Your task to perform on an android device: manage bookmarks in the chrome app Image 0: 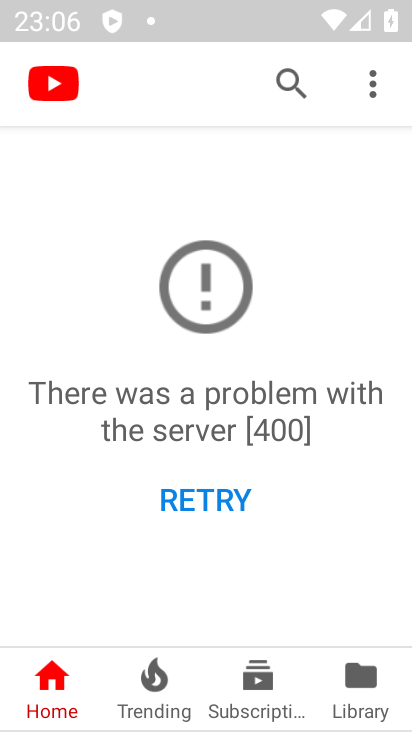
Step 0: press home button
Your task to perform on an android device: manage bookmarks in the chrome app Image 1: 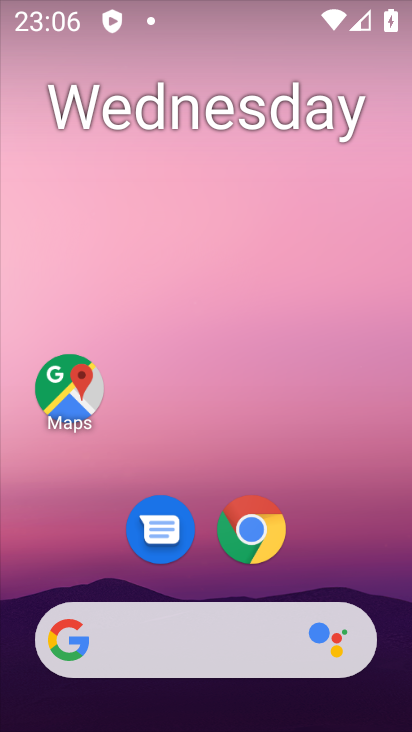
Step 1: drag from (380, 591) to (398, 197)
Your task to perform on an android device: manage bookmarks in the chrome app Image 2: 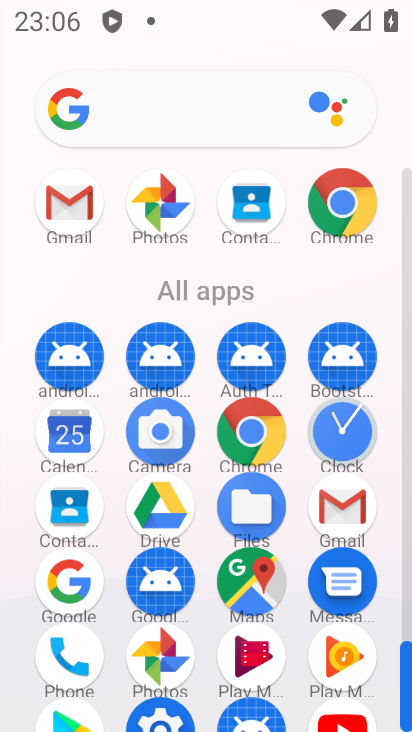
Step 2: click (263, 445)
Your task to perform on an android device: manage bookmarks in the chrome app Image 3: 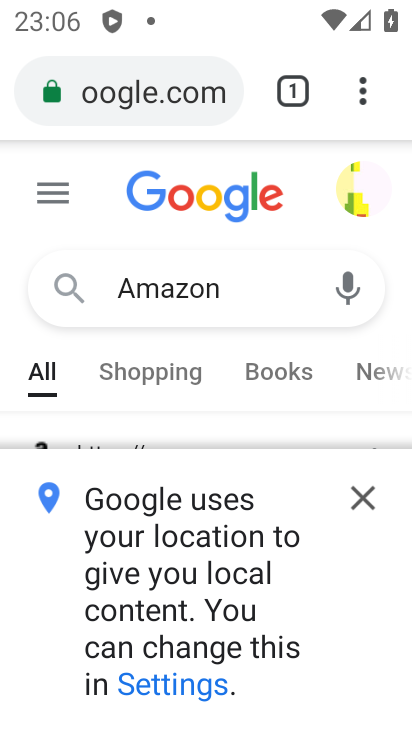
Step 3: click (362, 102)
Your task to perform on an android device: manage bookmarks in the chrome app Image 4: 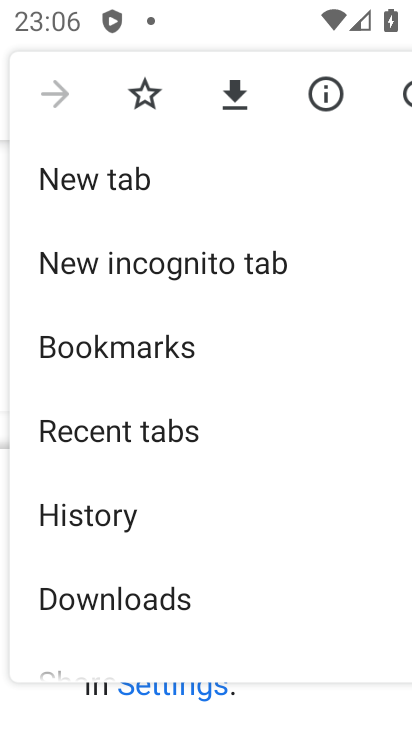
Step 4: drag from (298, 540) to (308, 462)
Your task to perform on an android device: manage bookmarks in the chrome app Image 5: 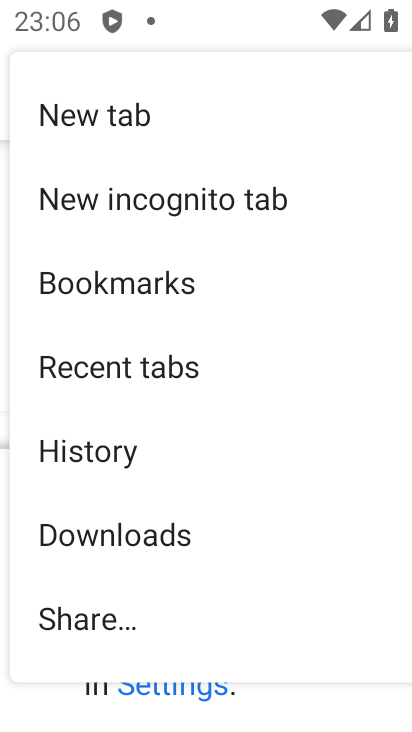
Step 5: drag from (285, 554) to (309, 442)
Your task to perform on an android device: manage bookmarks in the chrome app Image 6: 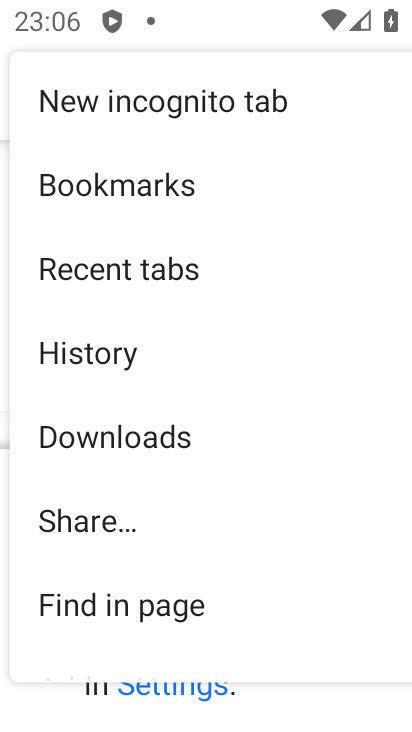
Step 6: drag from (311, 544) to (302, 359)
Your task to perform on an android device: manage bookmarks in the chrome app Image 7: 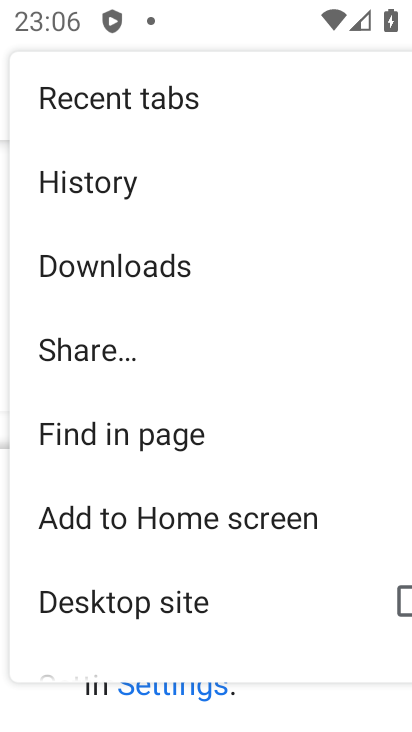
Step 7: drag from (304, 241) to (315, 339)
Your task to perform on an android device: manage bookmarks in the chrome app Image 8: 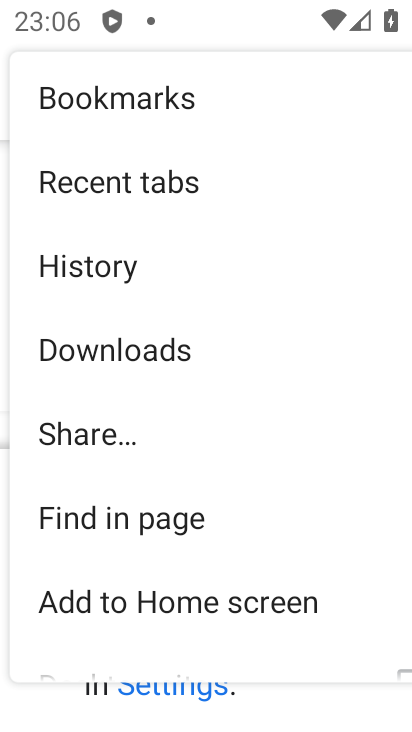
Step 8: drag from (307, 233) to (304, 332)
Your task to perform on an android device: manage bookmarks in the chrome app Image 9: 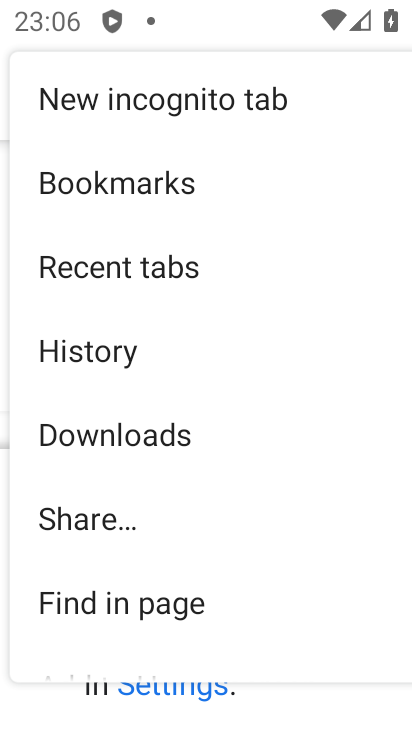
Step 9: click (207, 200)
Your task to perform on an android device: manage bookmarks in the chrome app Image 10: 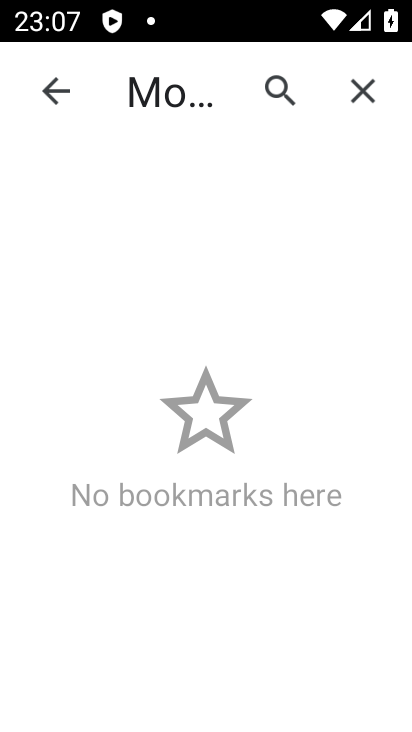
Step 10: task complete